Your task to perform on an android device: toggle data saver in the chrome app Image 0: 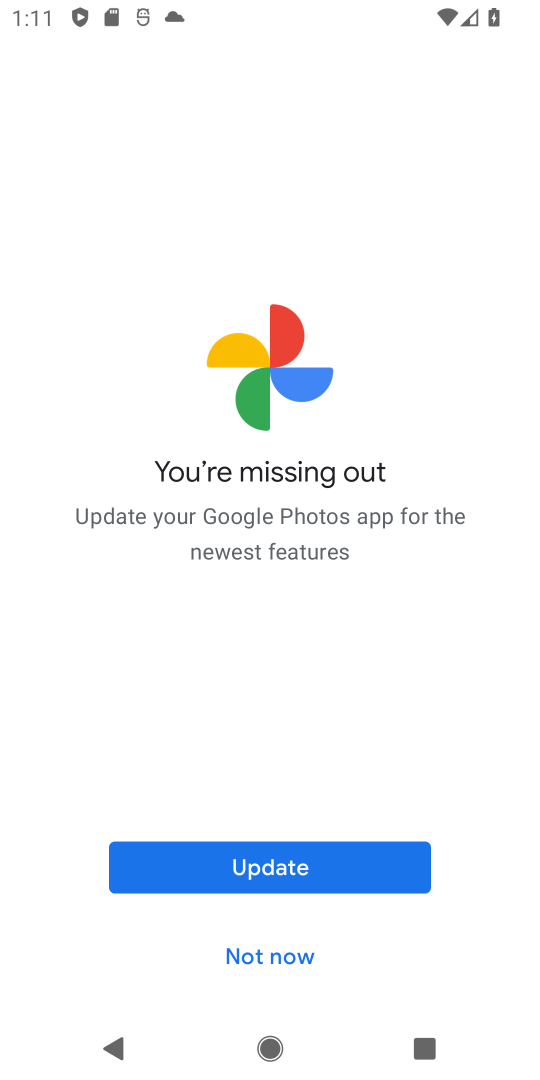
Step 0: press home button
Your task to perform on an android device: toggle data saver in the chrome app Image 1: 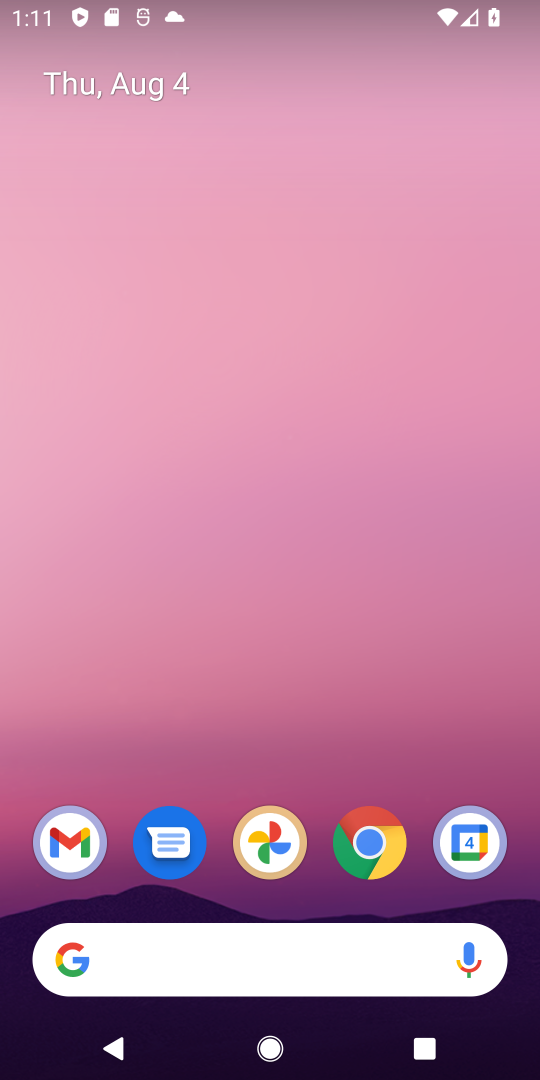
Step 1: click (409, 838)
Your task to perform on an android device: toggle data saver in the chrome app Image 2: 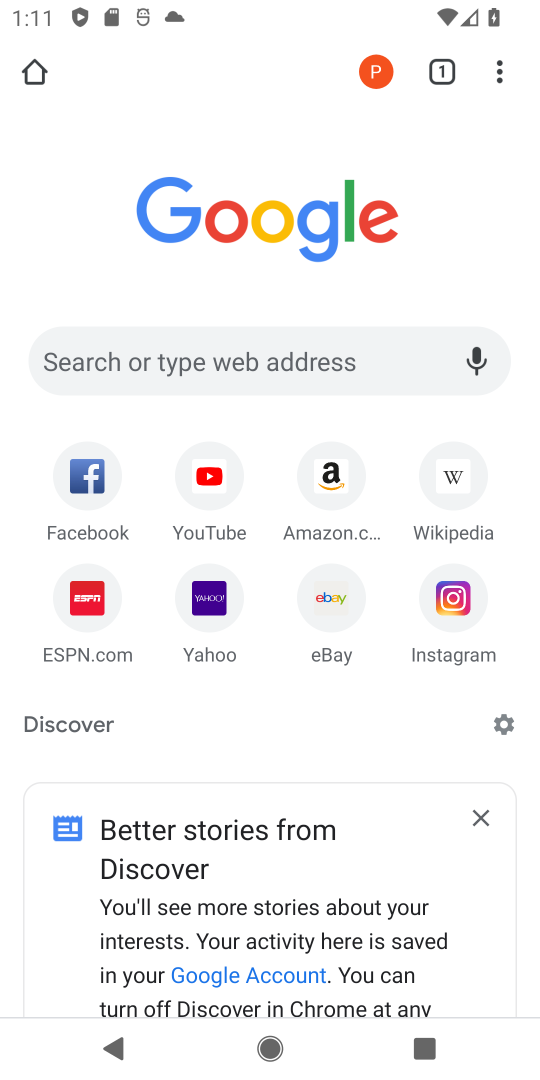
Step 2: click (503, 64)
Your task to perform on an android device: toggle data saver in the chrome app Image 3: 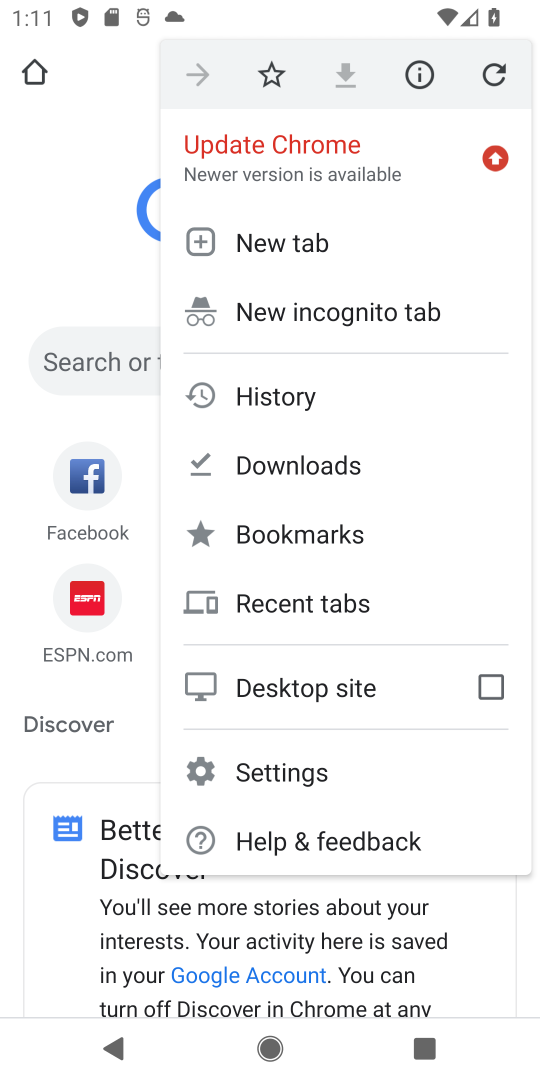
Step 3: click (249, 776)
Your task to perform on an android device: toggle data saver in the chrome app Image 4: 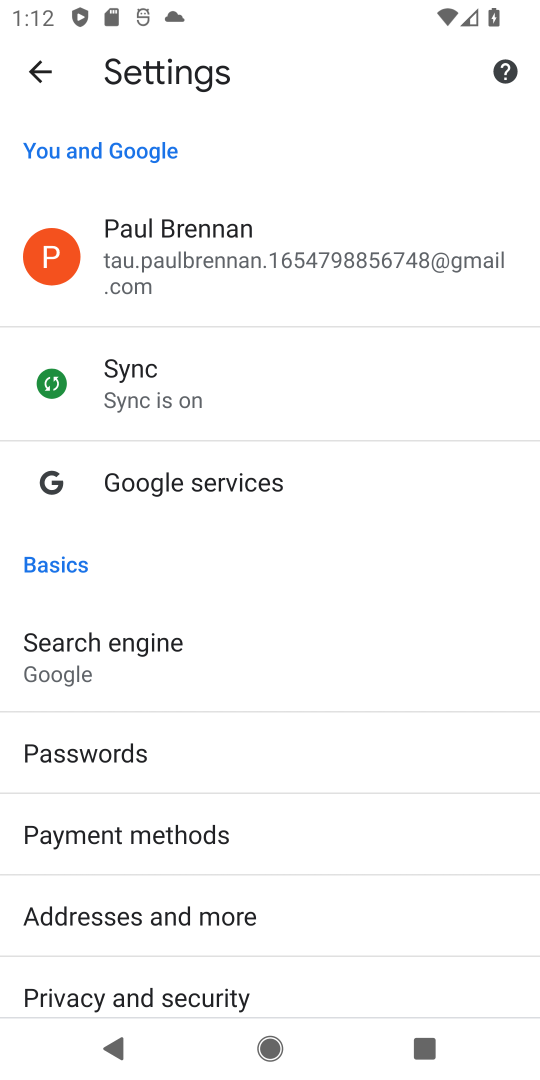
Step 4: drag from (262, 878) to (290, 442)
Your task to perform on an android device: toggle data saver in the chrome app Image 5: 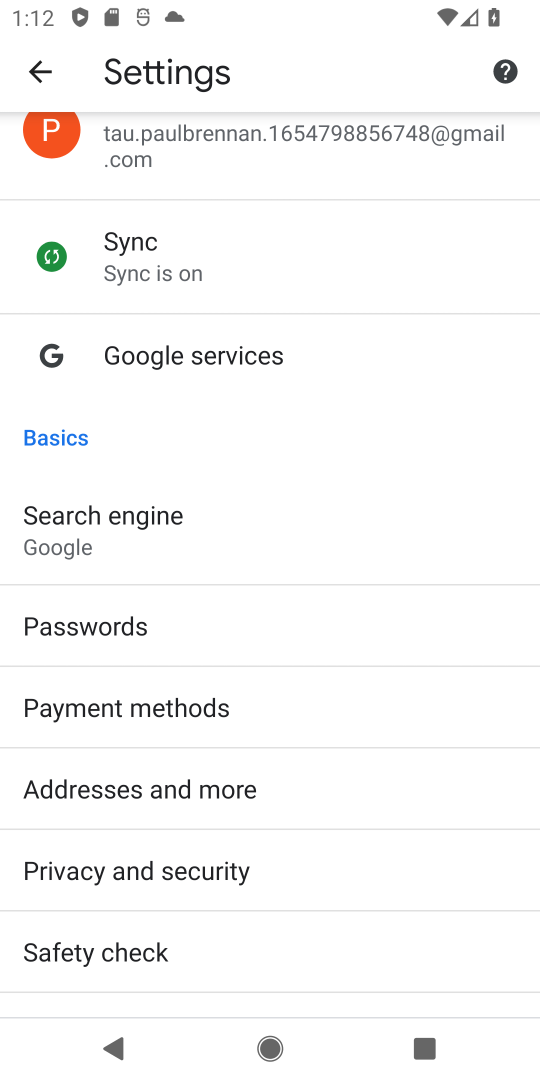
Step 5: drag from (268, 806) to (268, 288)
Your task to perform on an android device: toggle data saver in the chrome app Image 6: 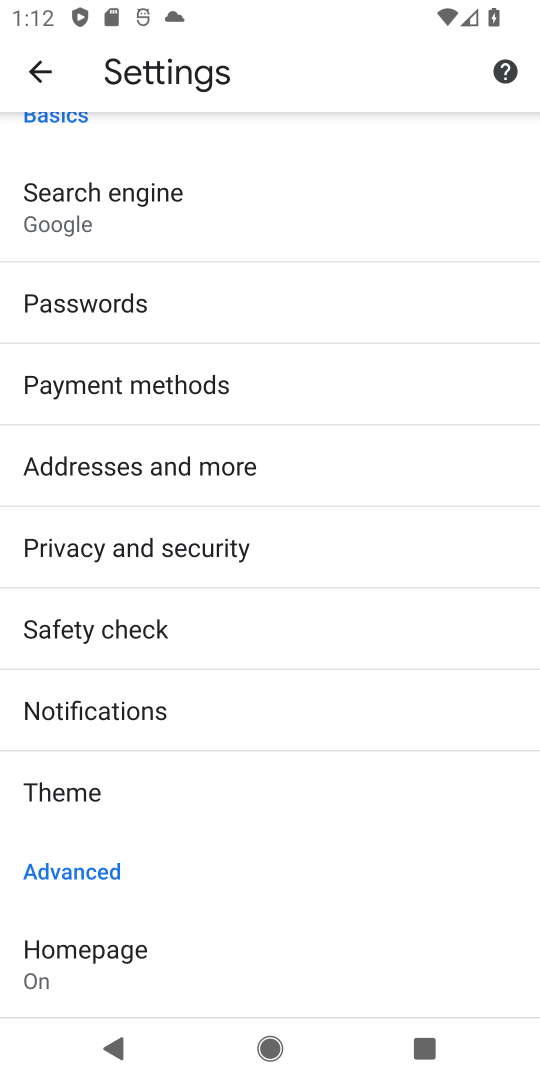
Step 6: drag from (230, 773) to (200, 150)
Your task to perform on an android device: toggle data saver in the chrome app Image 7: 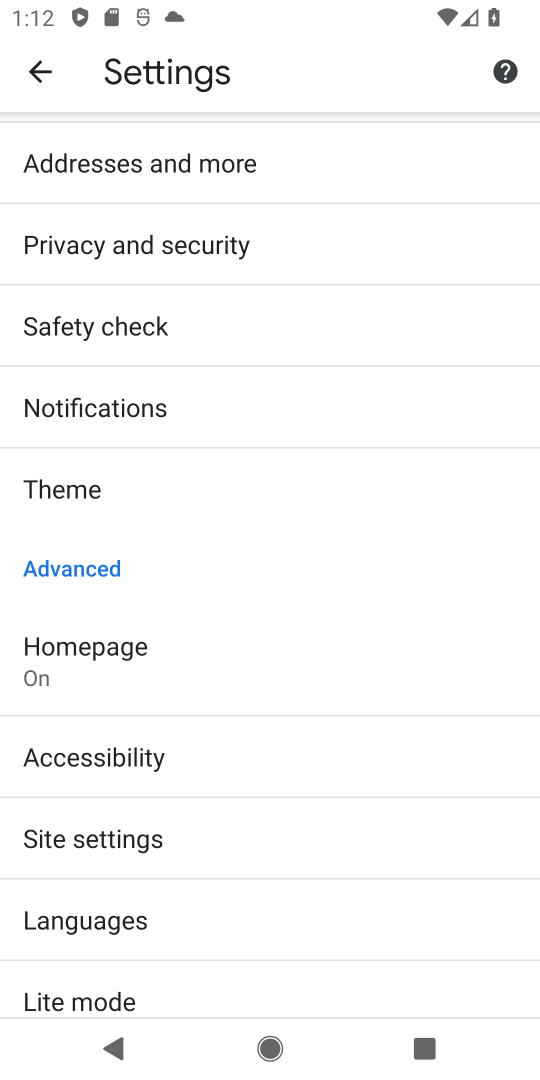
Step 7: click (219, 971)
Your task to perform on an android device: toggle data saver in the chrome app Image 8: 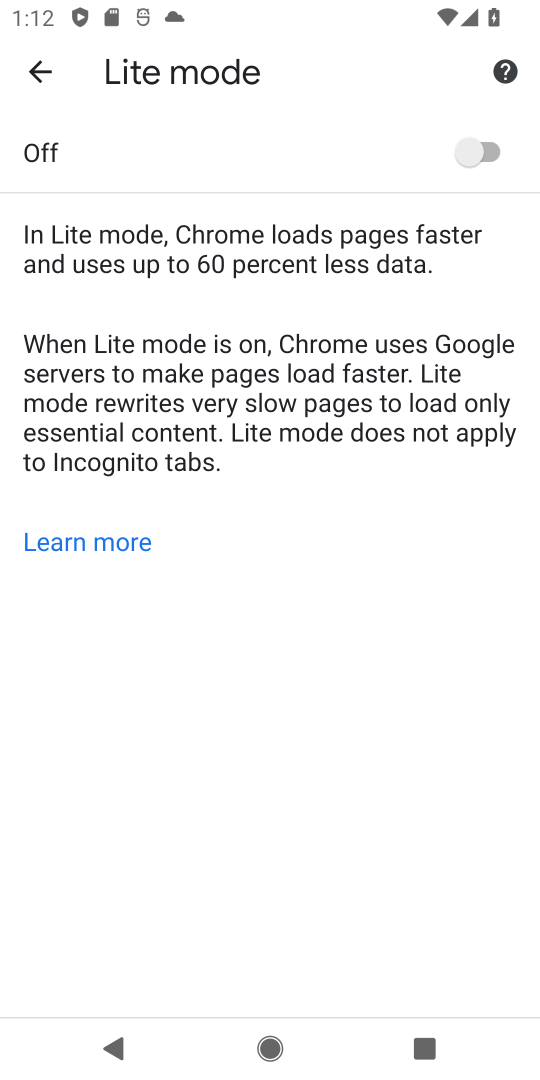
Step 8: click (491, 154)
Your task to perform on an android device: toggle data saver in the chrome app Image 9: 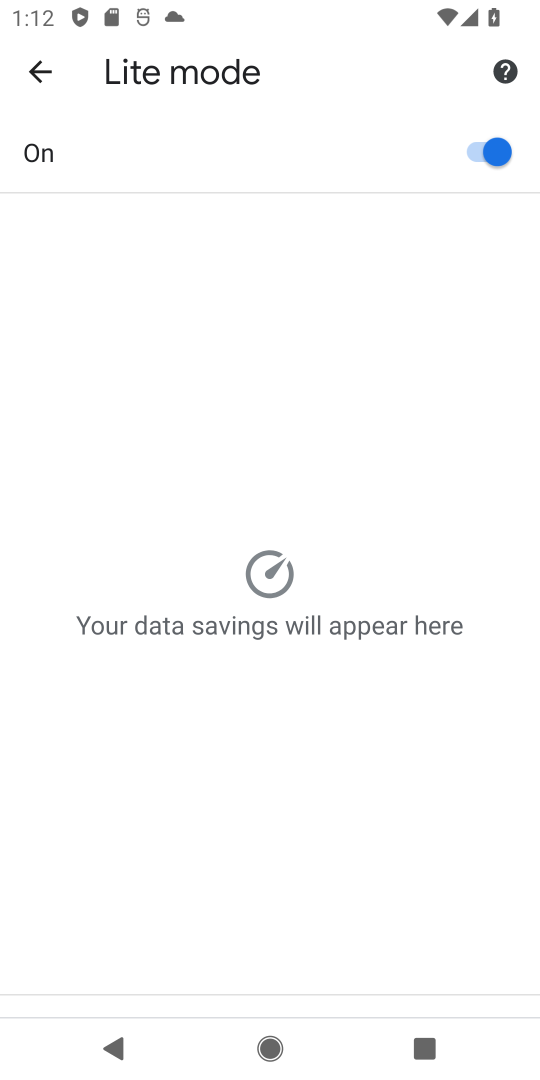
Step 9: task complete